Your task to perform on an android device: Set the phone to "Do not disturb". Image 0: 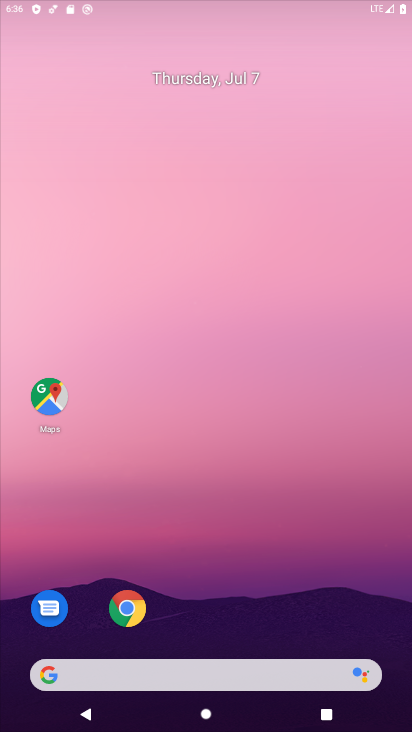
Step 0: drag from (370, 590) to (8, 101)
Your task to perform on an android device: Set the phone to "Do not disturb". Image 1: 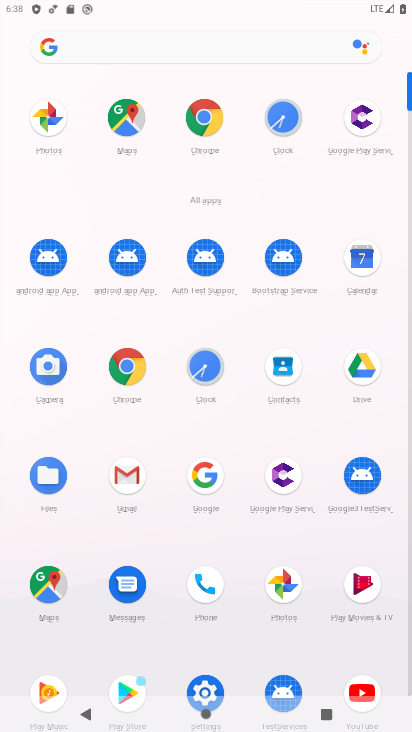
Step 1: drag from (375, 5) to (360, 170)
Your task to perform on an android device: Set the phone to "Do not disturb". Image 2: 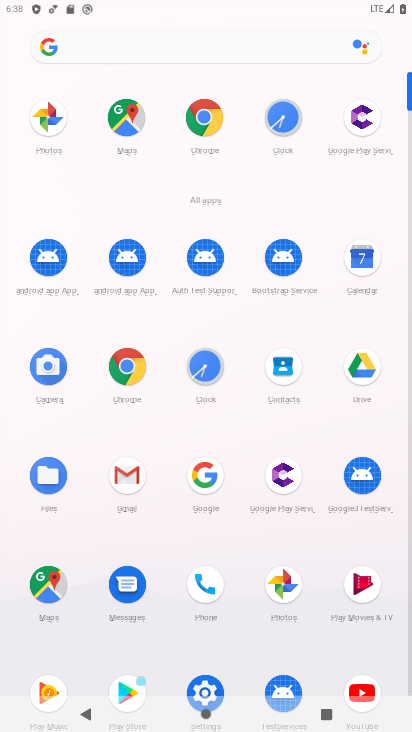
Step 2: drag from (359, 3) to (332, 676)
Your task to perform on an android device: Set the phone to "Do not disturb". Image 3: 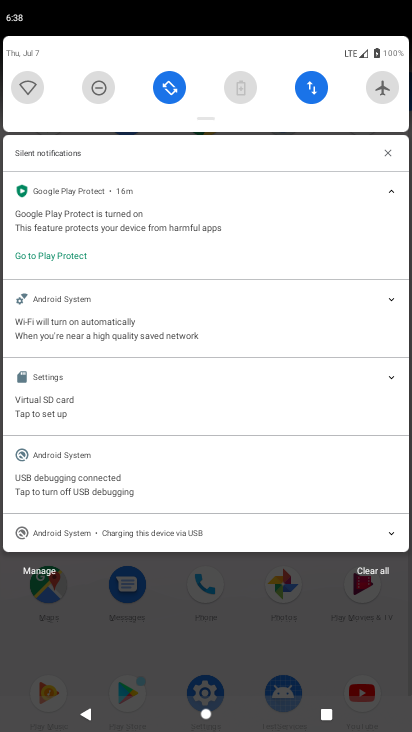
Step 3: click (102, 92)
Your task to perform on an android device: Set the phone to "Do not disturb". Image 4: 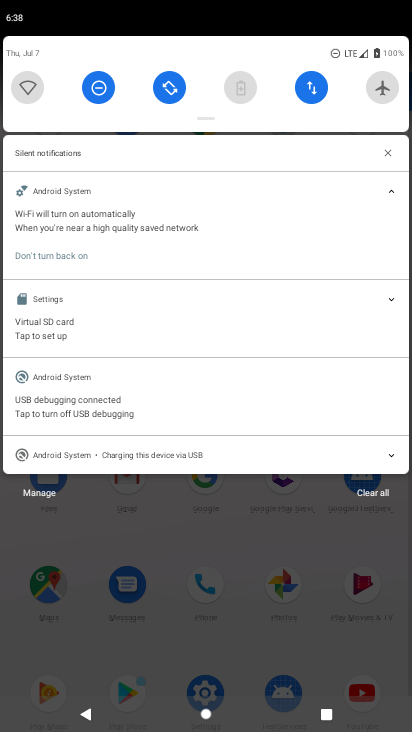
Step 4: task complete